Your task to perform on an android device: change the clock display to digital Image 0: 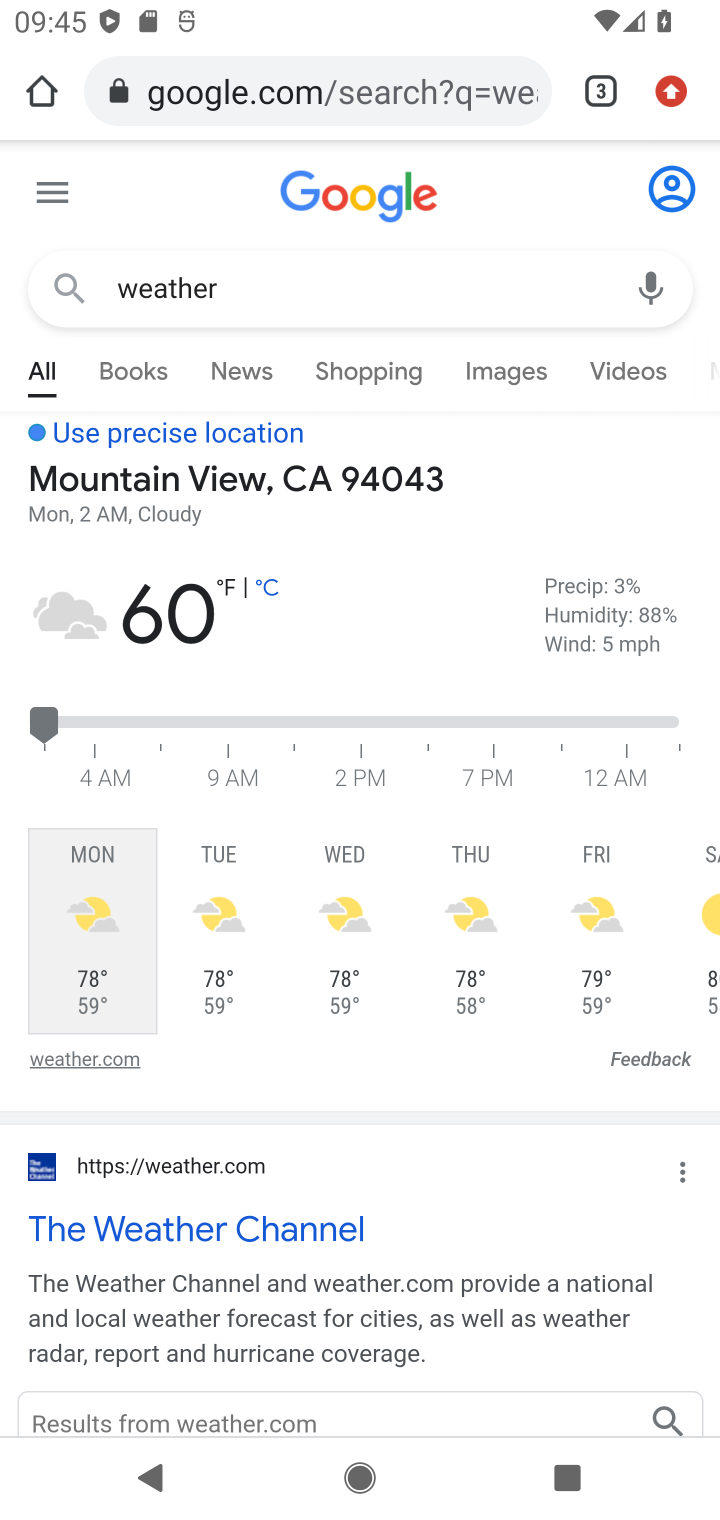
Step 0: press home button
Your task to perform on an android device: change the clock display to digital Image 1: 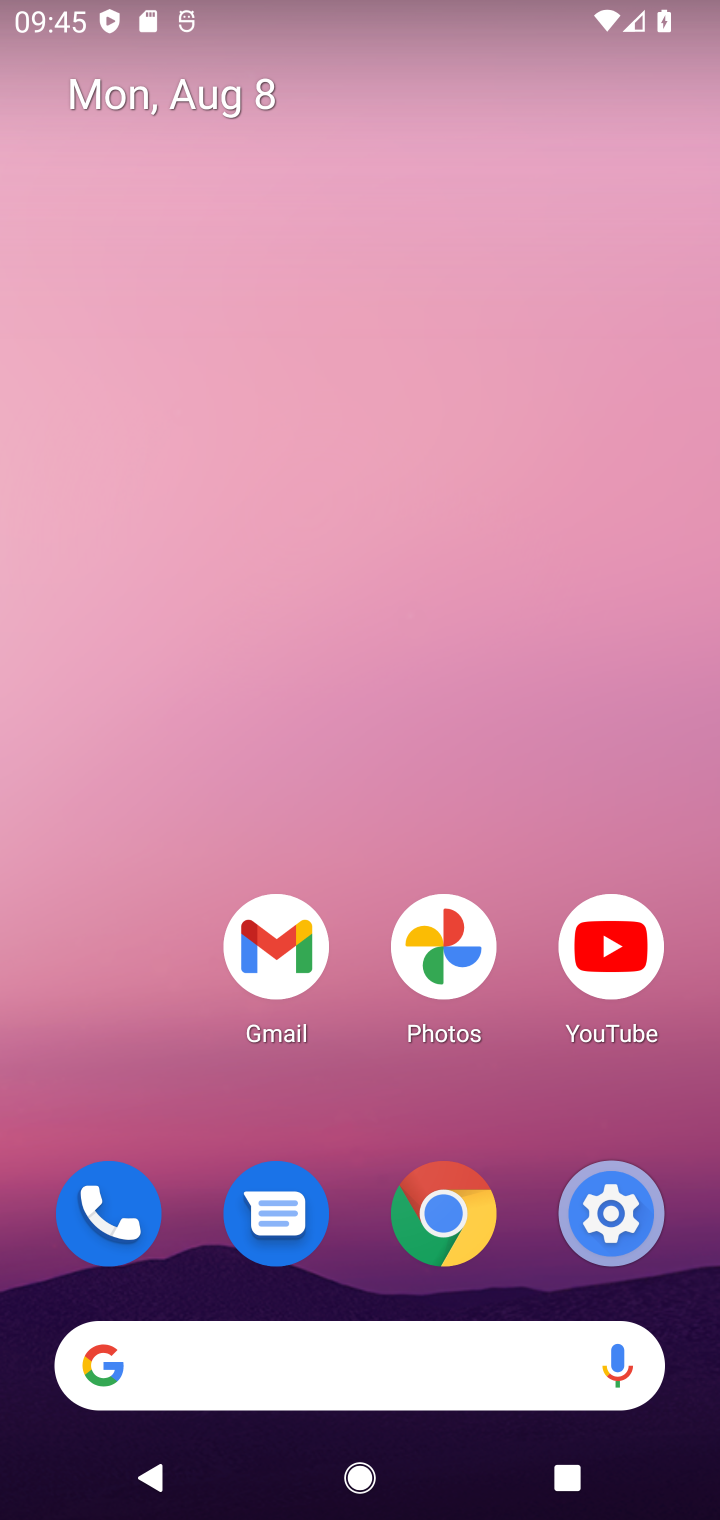
Step 1: drag from (374, 756) to (375, 306)
Your task to perform on an android device: change the clock display to digital Image 2: 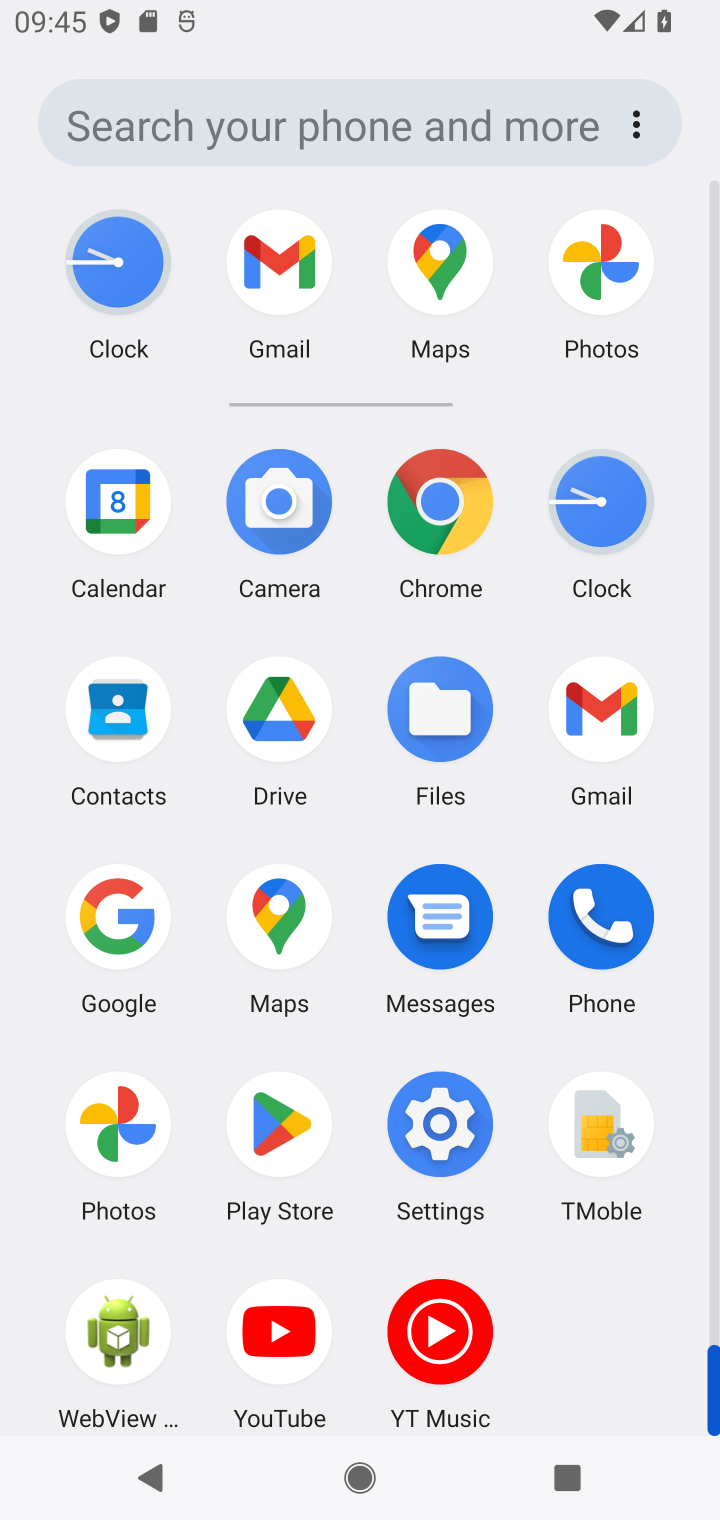
Step 2: click (627, 542)
Your task to perform on an android device: change the clock display to digital Image 3: 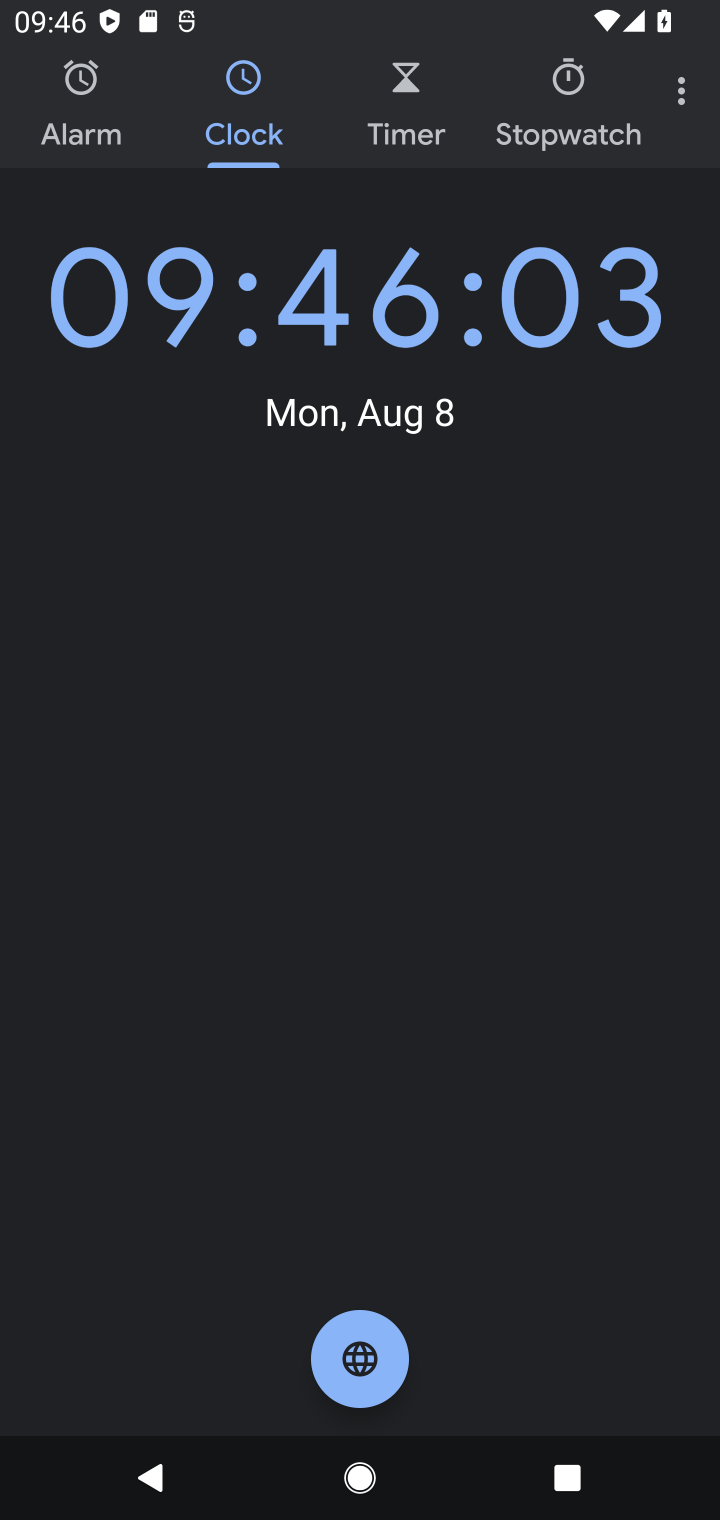
Step 3: click (687, 99)
Your task to perform on an android device: change the clock display to digital Image 4: 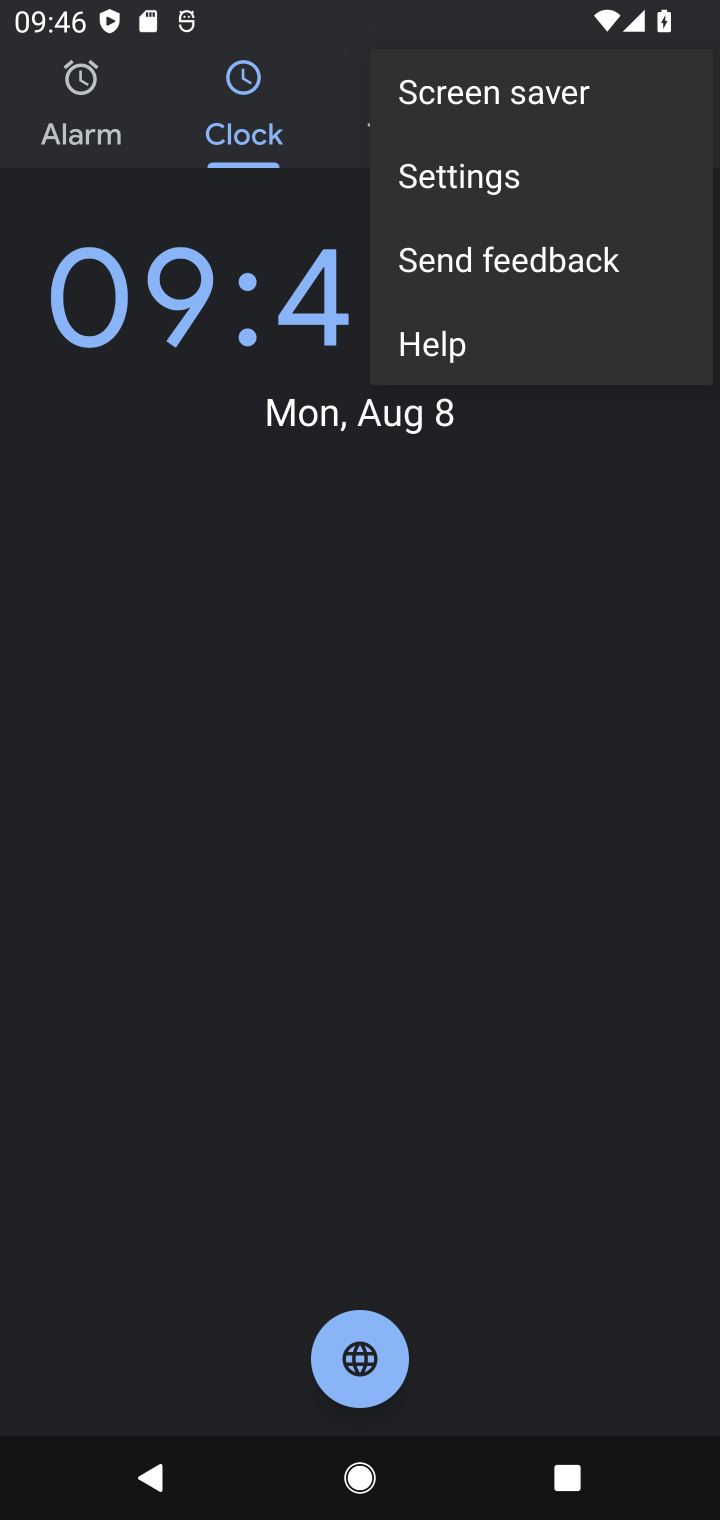
Step 4: click (544, 180)
Your task to perform on an android device: change the clock display to digital Image 5: 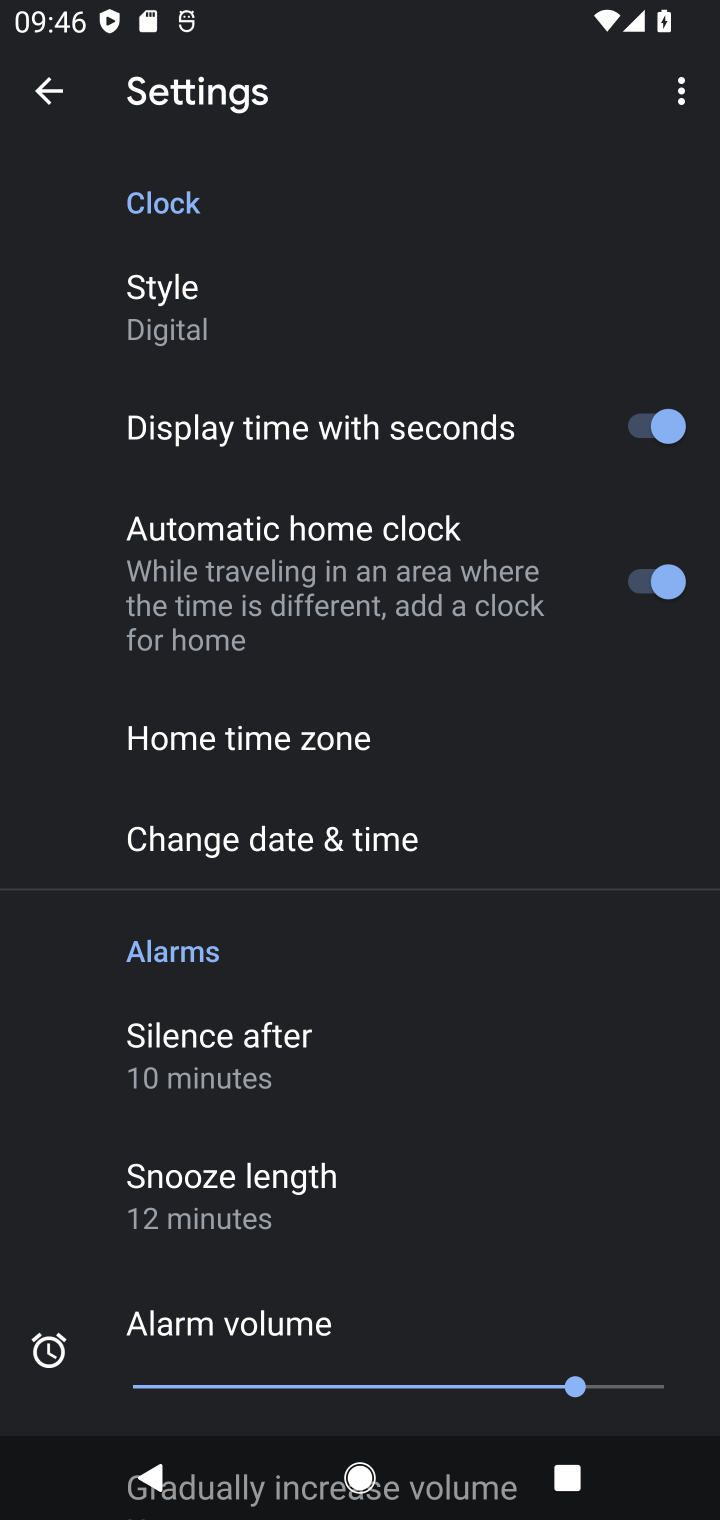
Step 5: task complete